Your task to perform on an android device: What's the weather like in Sydney? Image 0: 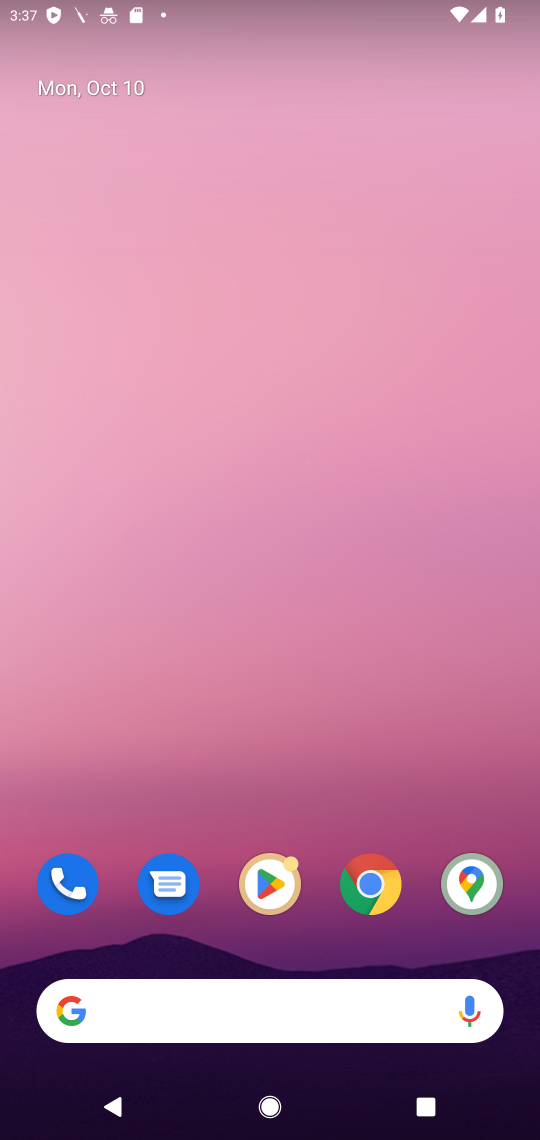
Step 0: click (299, 997)
Your task to perform on an android device: What's the weather like in Sydney? Image 1: 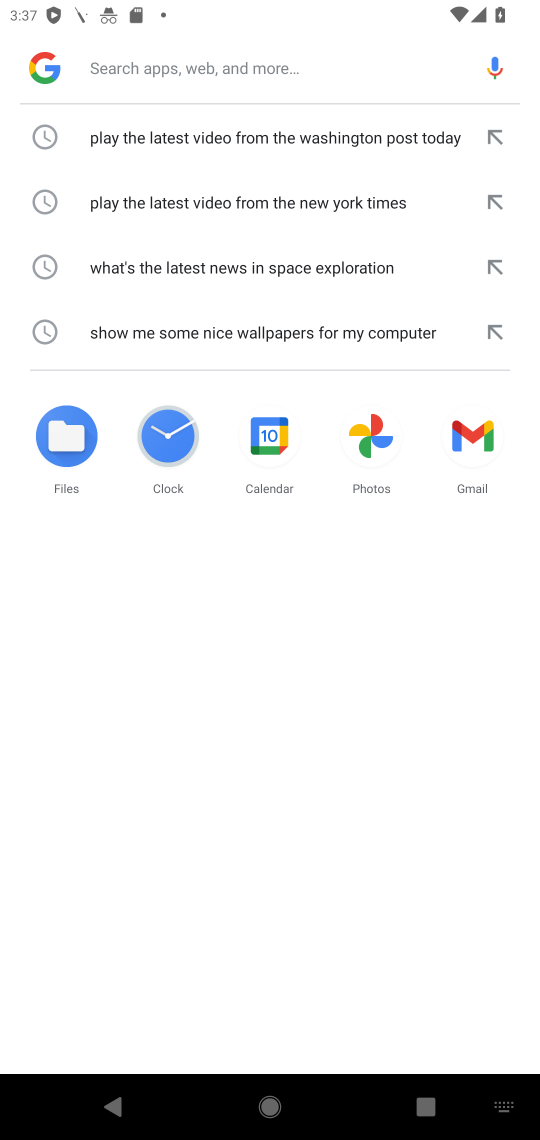
Step 1: type "What's the weather like in Sydney?"
Your task to perform on an android device: What's the weather like in Sydney? Image 2: 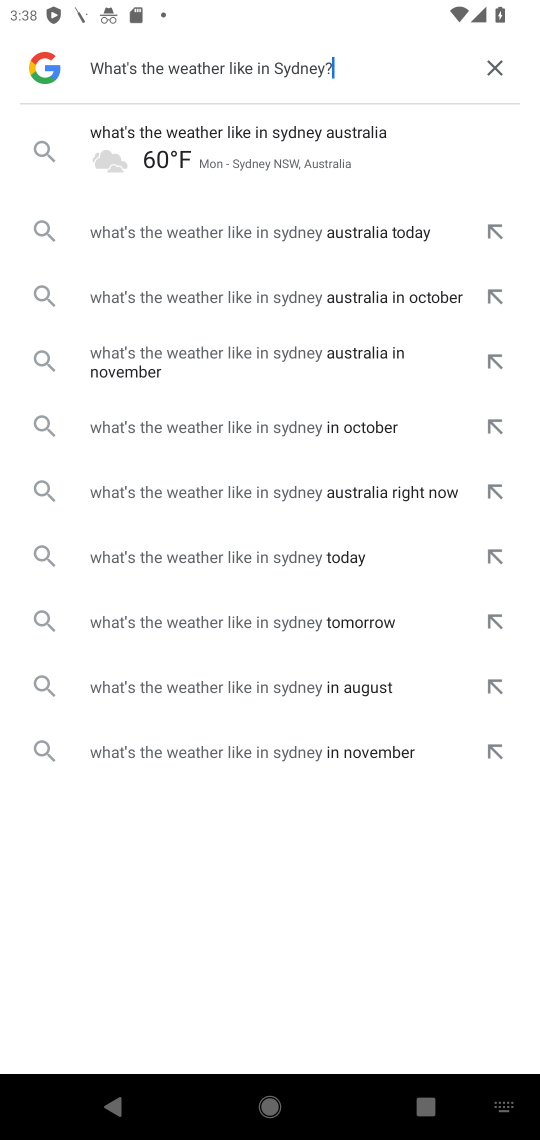
Step 2: click (222, 127)
Your task to perform on an android device: What's the weather like in Sydney? Image 3: 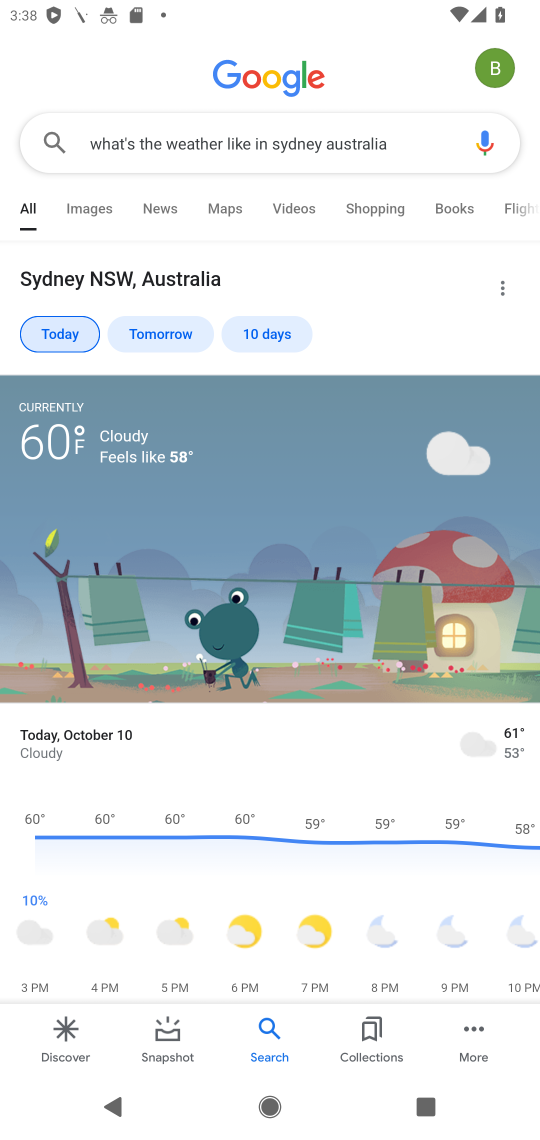
Step 3: task complete